Your task to perform on an android device: Open the phone app and click the voicemail tab. Image 0: 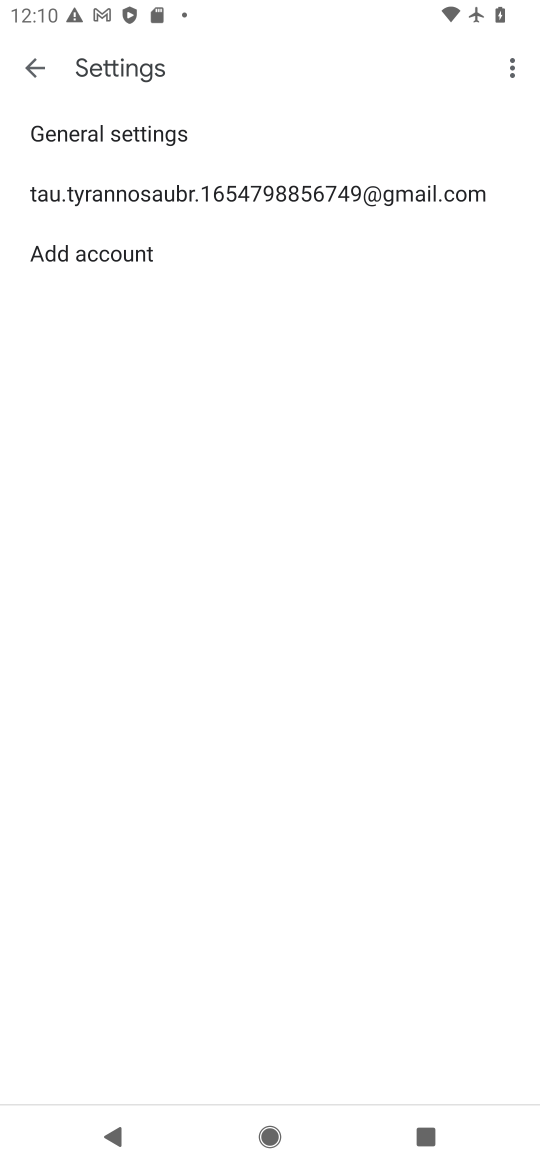
Step 0: press home button
Your task to perform on an android device: Open the phone app and click the voicemail tab. Image 1: 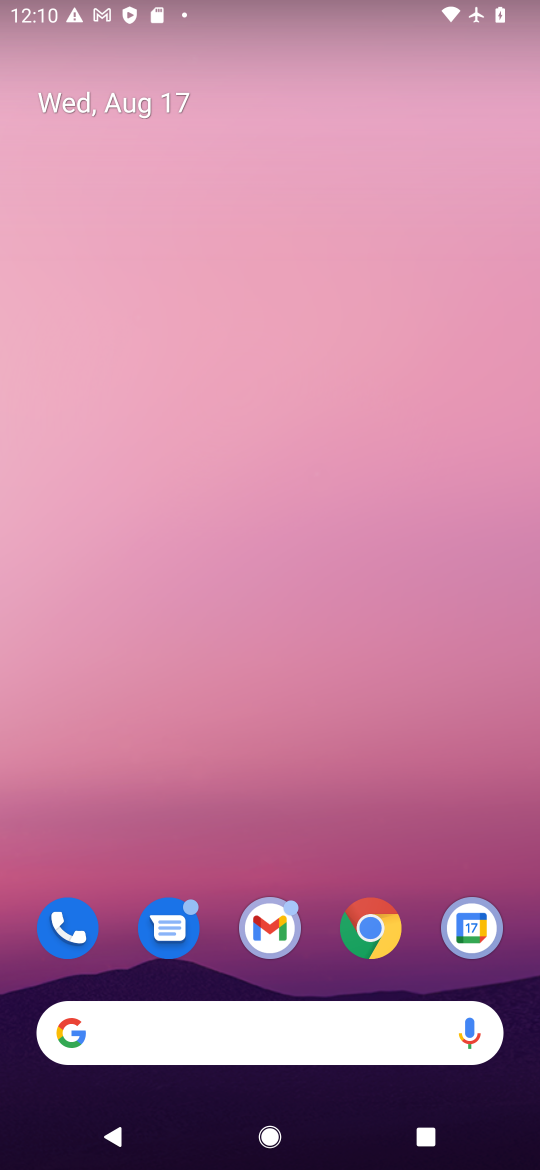
Step 1: drag from (244, 829) to (251, 282)
Your task to perform on an android device: Open the phone app and click the voicemail tab. Image 2: 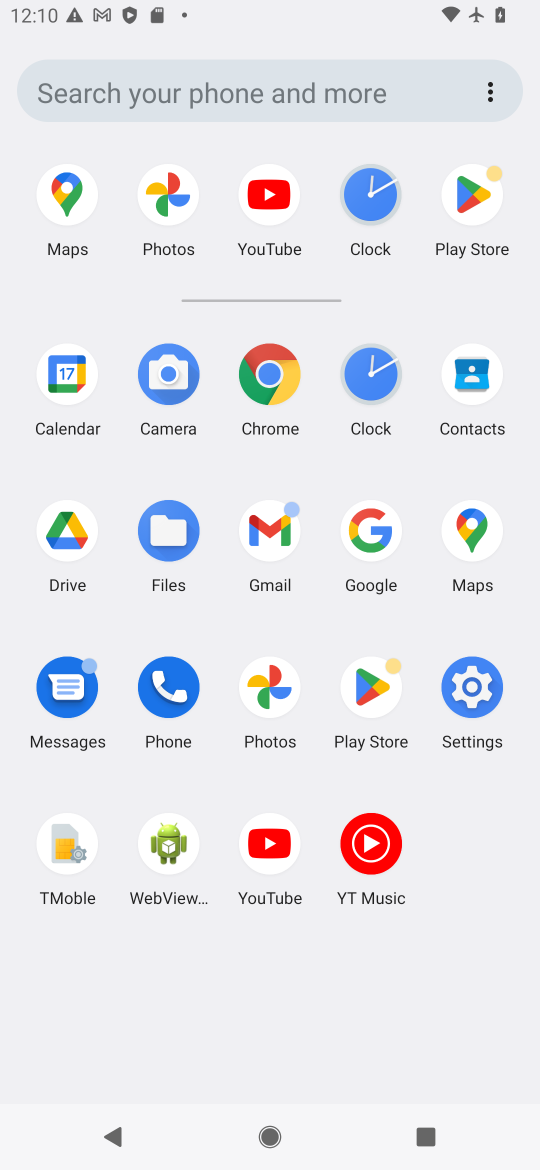
Step 2: click (151, 688)
Your task to perform on an android device: Open the phone app and click the voicemail tab. Image 3: 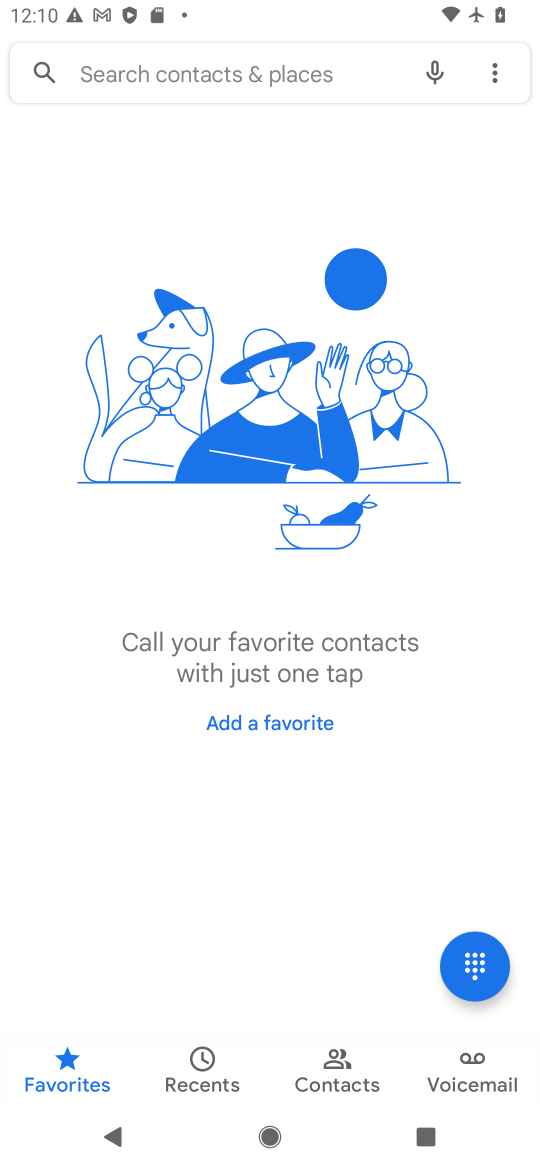
Step 3: click (465, 1086)
Your task to perform on an android device: Open the phone app and click the voicemail tab. Image 4: 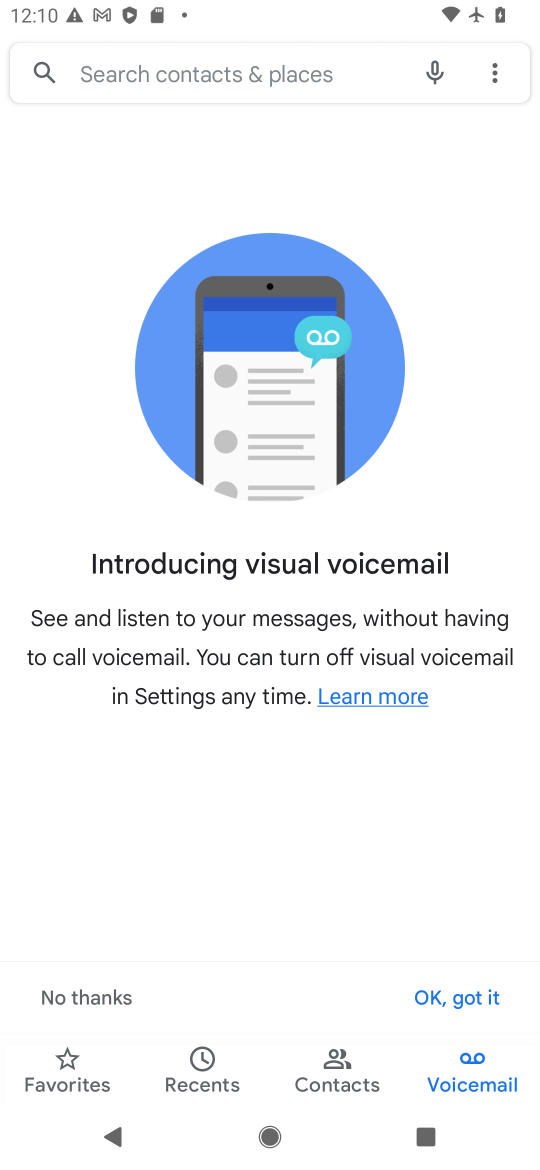
Step 4: task complete